Your task to perform on an android device: Do I have any events this weekend? Image 0: 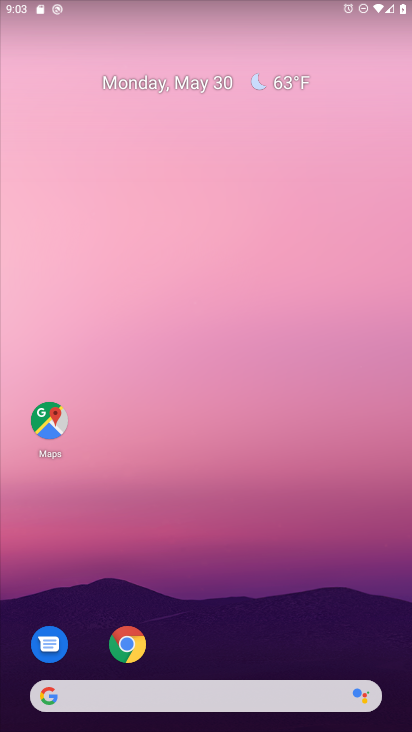
Step 0: drag from (204, 639) to (245, 93)
Your task to perform on an android device: Do I have any events this weekend? Image 1: 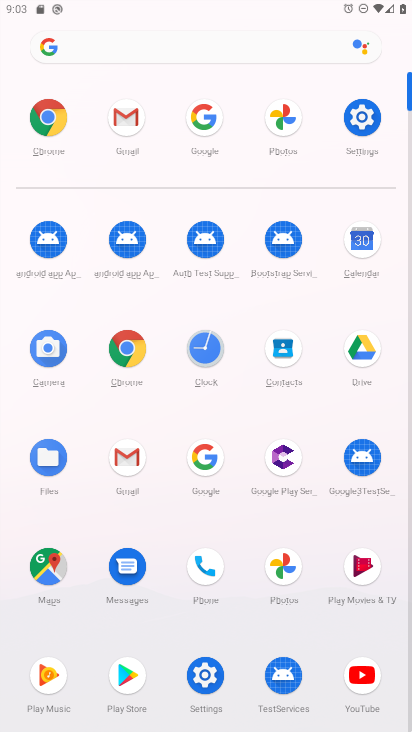
Step 1: click (359, 241)
Your task to perform on an android device: Do I have any events this weekend? Image 2: 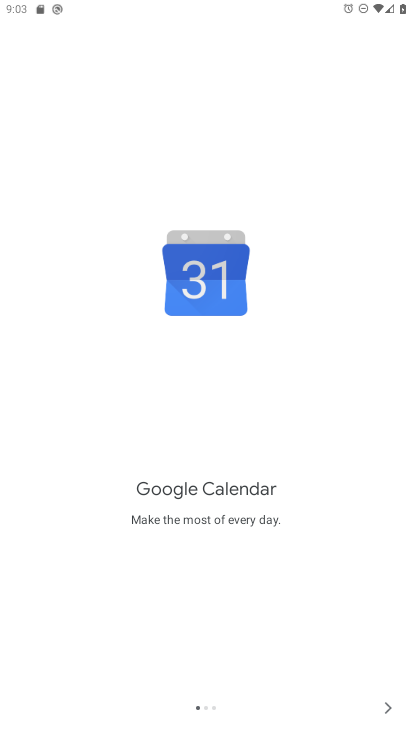
Step 2: click (384, 703)
Your task to perform on an android device: Do I have any events this weekend? Image 3: 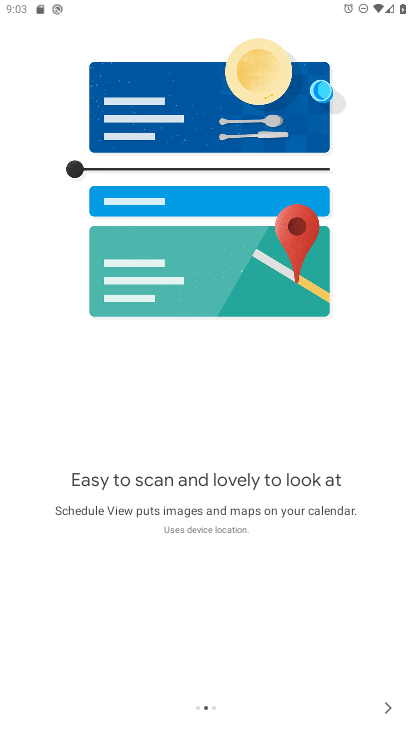
Step 3: click (389, 702)
Your task to perform on an android device: Do I have any events this weekend? Image 4: 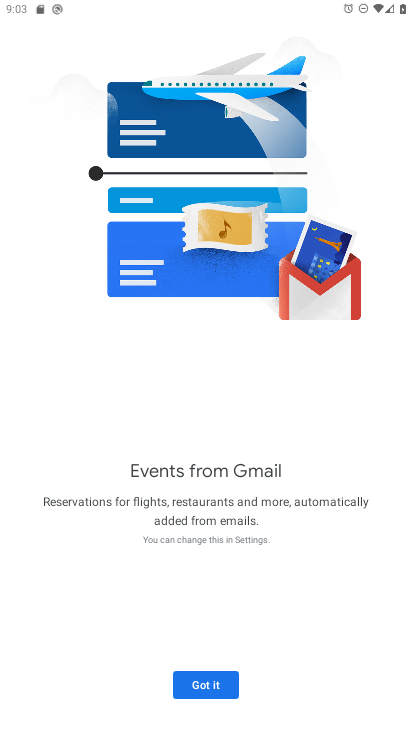
Step 4: click (202, 687)
Your task to perform on an android device: Do I have any events this weekend? Image 5: 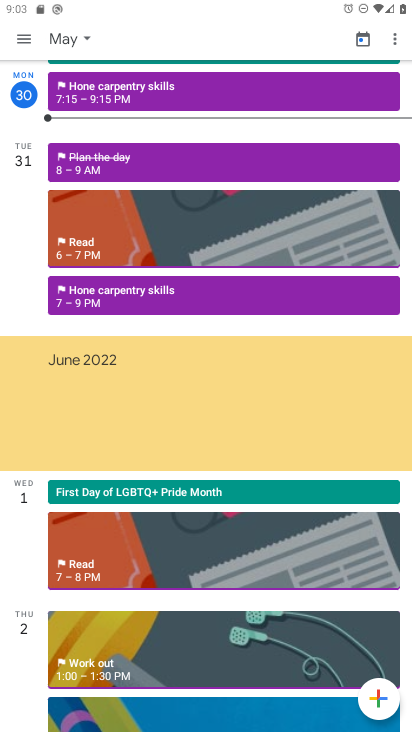
Step 5: click (64, 38)
Your task to perform on an android device: Do I have any events this weekend? Image 6: 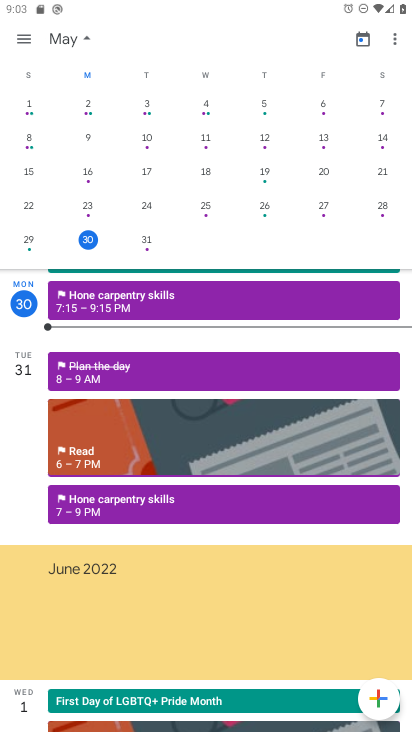
Step 6: click (143, 241)
Your task to perform on an android device: Do I have any events this weekend? Image 7: 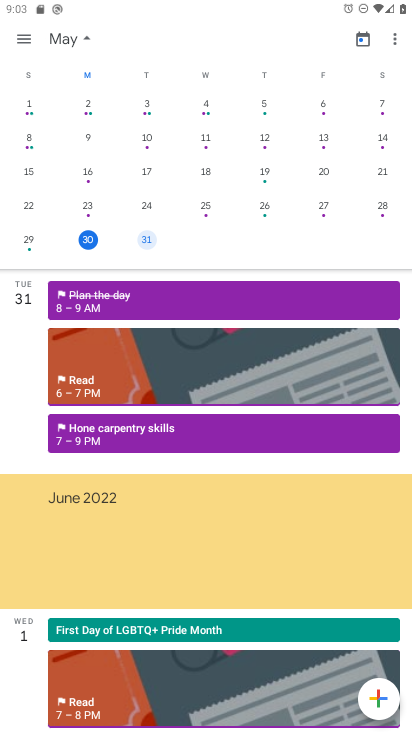
Step 7: task complete